Your task to perform on an android device: Do I have any events tomorrow? Image 0: 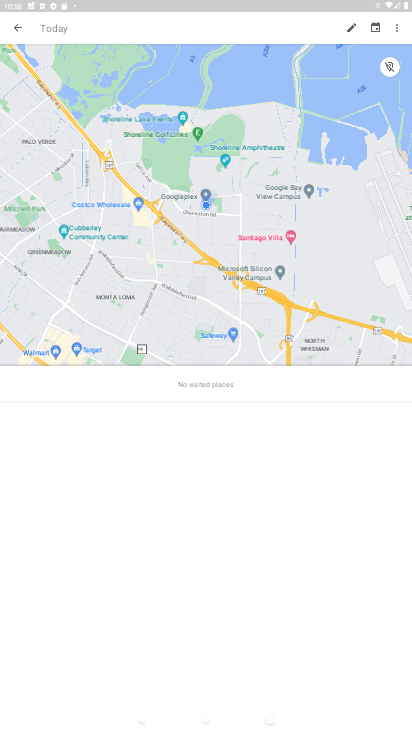
Step 0: press home button
Your task to perform on an android device: Do I have any events tomorrow? Image 1: 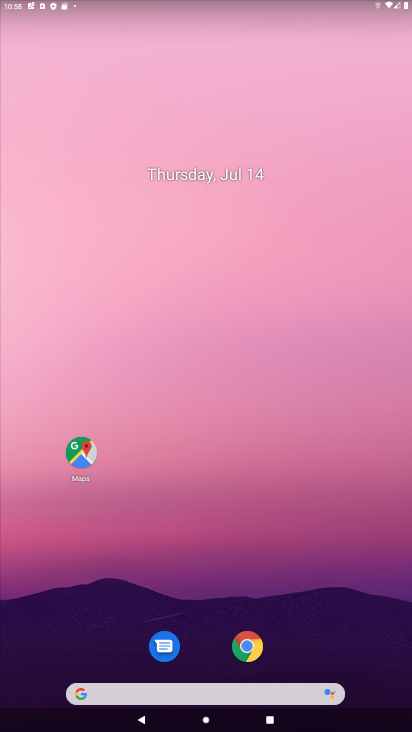
Step 1: drag from (195, 622) to (195, 235)
Your task to perform on an android device: Do I have any events tomorrow? Image 2: 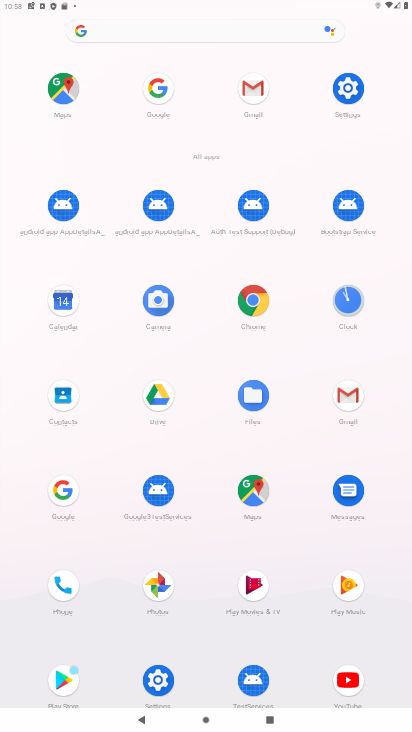
Step 2: click (58, 307)
Your task to perform on an android device: Do I have any events tomorrow? Image 3: 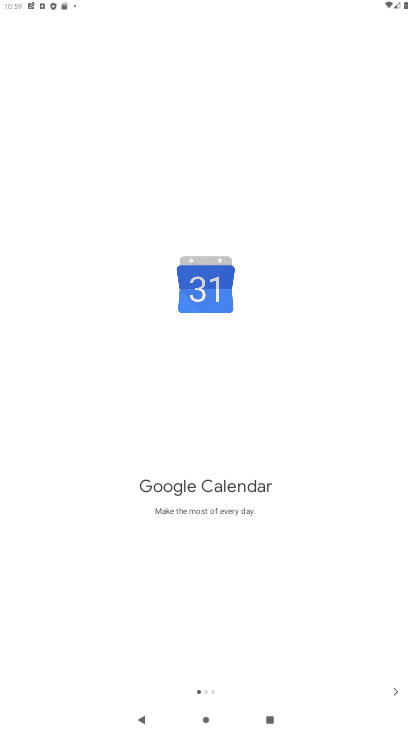
Step 3: click (399, 693)
Your task to perform on an android device: Do I have any events tomorrow? Image 4: 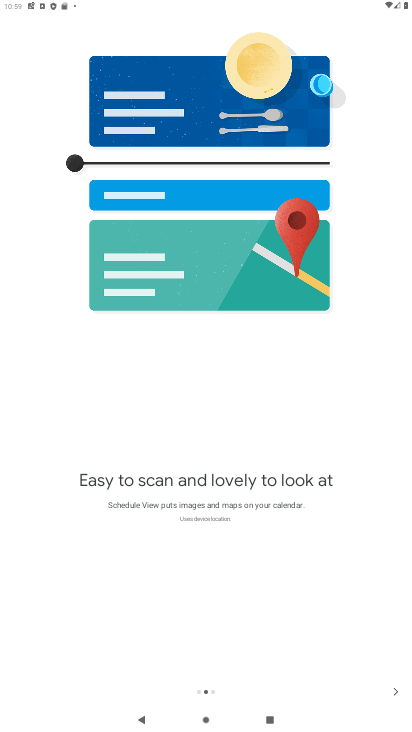
Step 4: click (398, 691)
Your task to perform on an android device: Do I have any events tomorrow? Image 5: 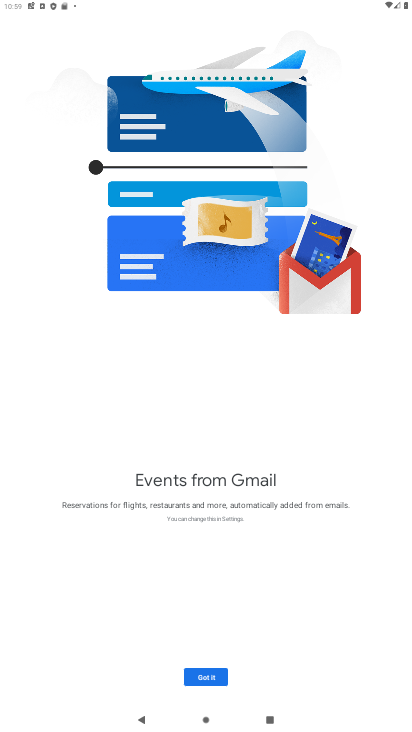
Step 5: click (221, 675)
Your task to perform on an android device: Do I have any events tomorrow? Image 6: 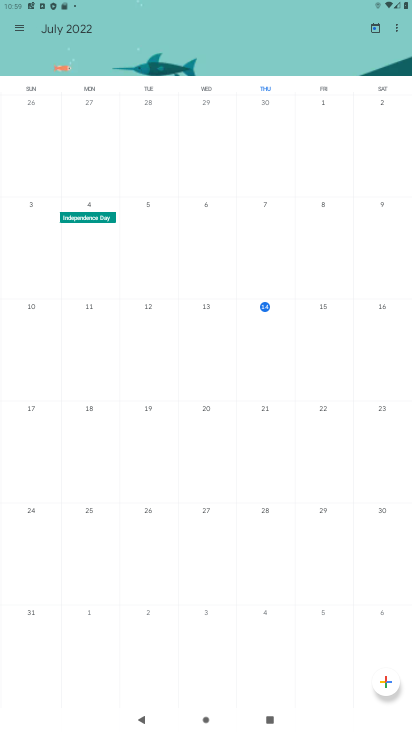
Step 6: click (250, 305)
Your task to perform on an android device: Do I have any events tomorrow? Image 7: 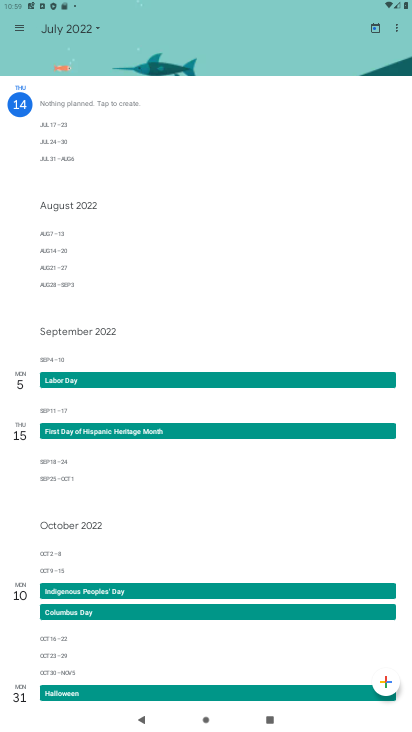
Step 7: task complete